Your task to perform on an android device: Open the web browser Image 0: 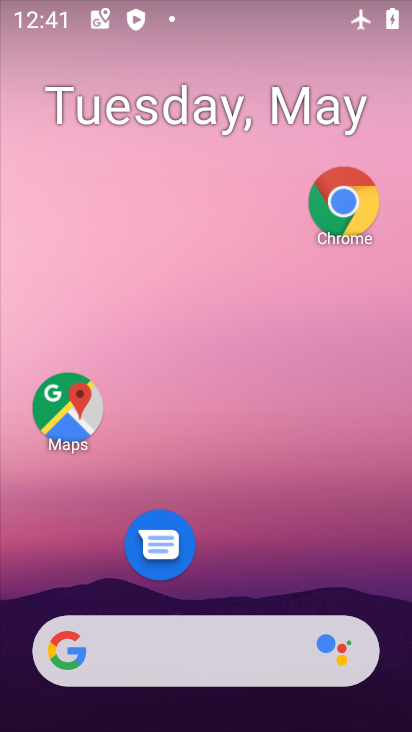
Step 0: click (217, 665)
Your task to perform on an android device: Open the web browser Image 1: 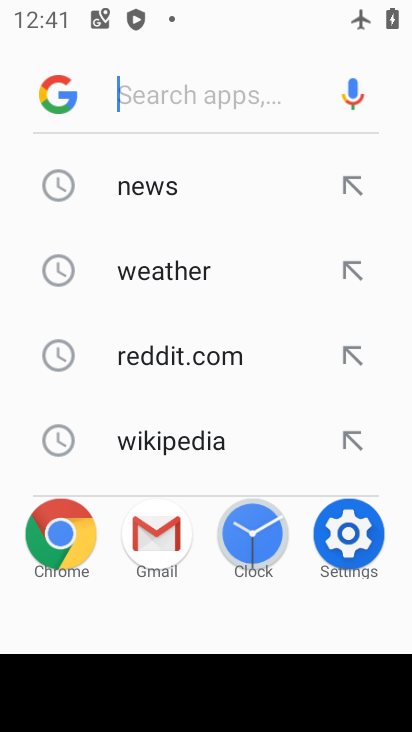
Step 1: task complete